Your task to perform on an android device: Open privacy settings Image 0: 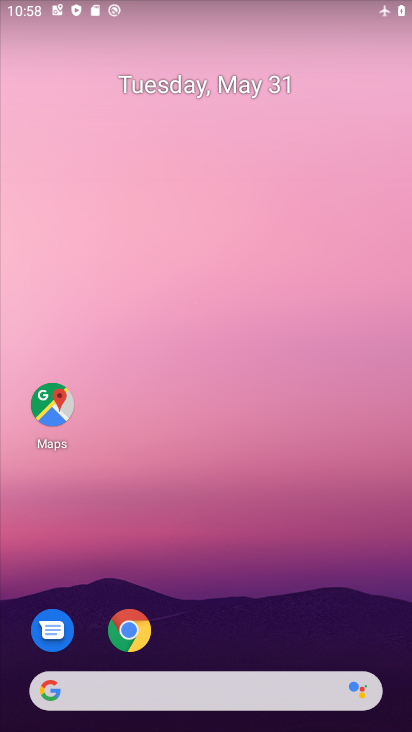
Step 0: drag from (191, 569) to (226, 131)
Your task to perform on an android device: Open privacy settings Image 1: 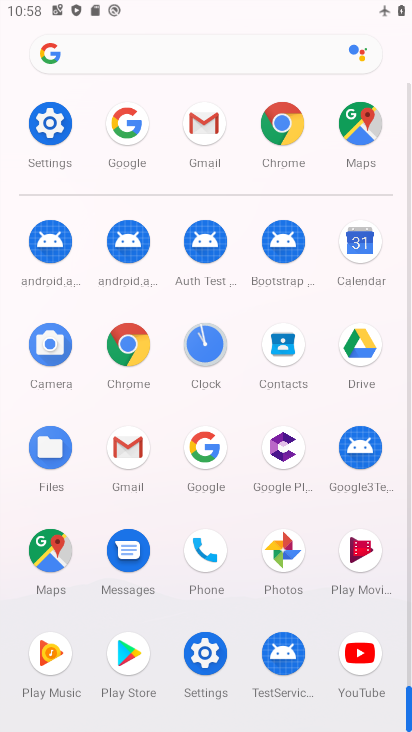
Step 1: click (58, 145)
Your task to perform on an android device: Open privacy settings Image 2: 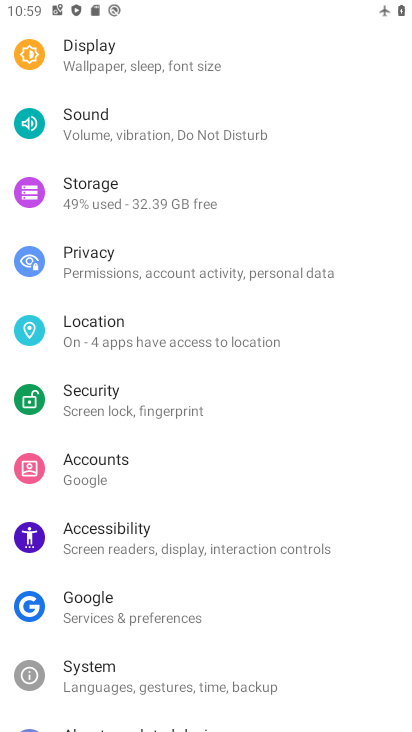
Step 2: drag from (156, 309) to (159, 517)
Your task to perform on an android device: Open privacy settings Image 3: 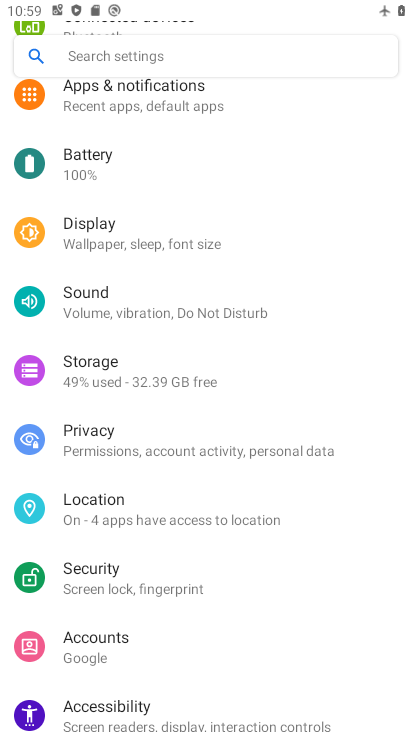
Step 3: click (173, 437)
Your task to perform on an android device: Open privacy settings Image 4: 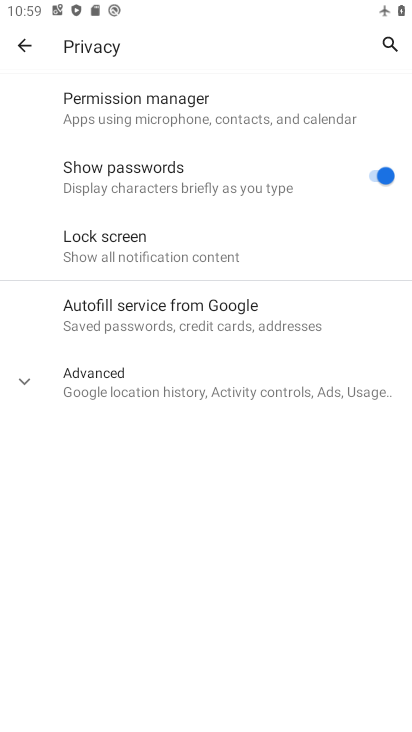
Step 4: task complete